Your task to perform on an android device: change notification settings in the gmail app Image 0: 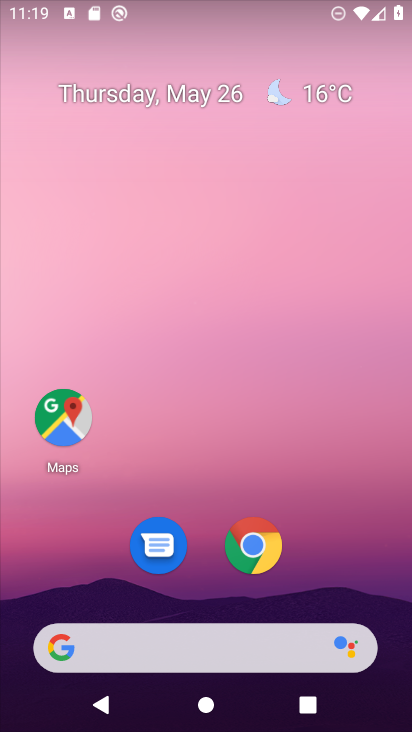
Step 0: press home button
Your task to perform on an android device: change notification settings in the gmail app Image 1: 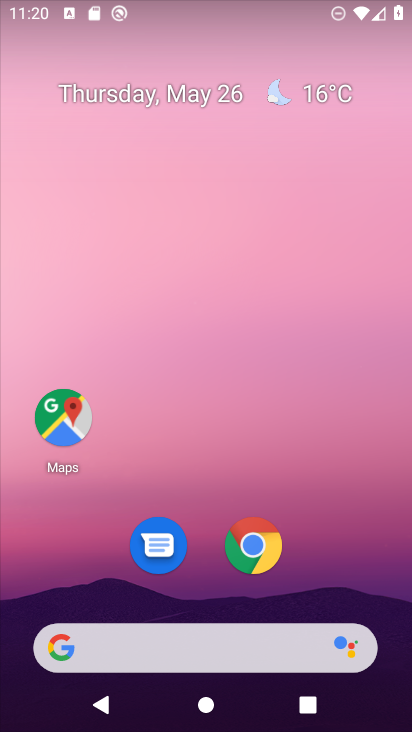
Step 1: drag from (221, 540) to (202, 116)
Your task to perform on an android device: change notification settings in the gmail app Image 2: 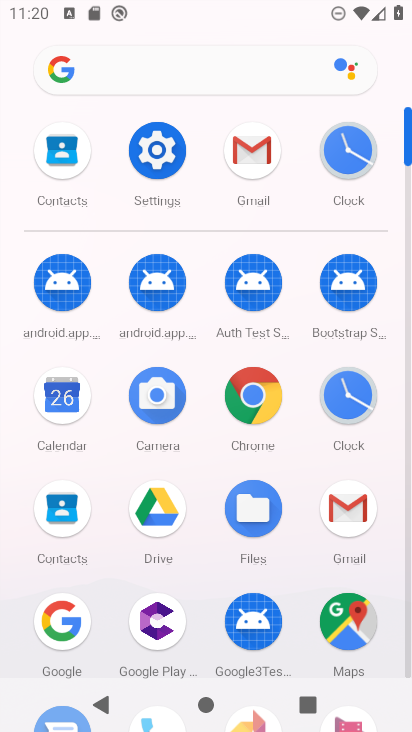
Step 2: click (241, 155)
Your task to perform on an android device: change notification settings in the gmail app Image 3: 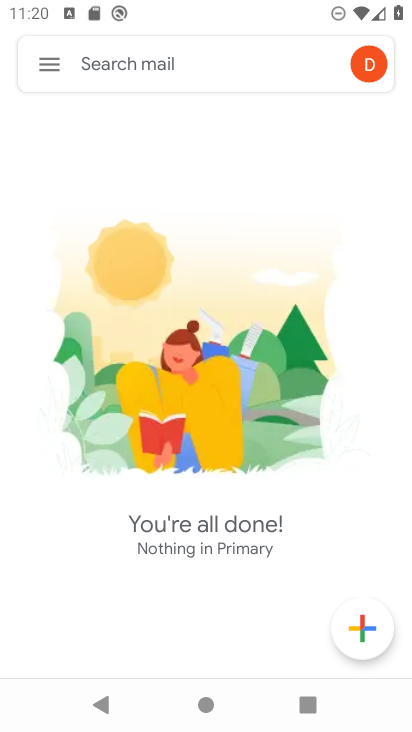
Step 3: click (37, 72)
Your task to perform on an android device: change notification settings in the gmail app Image 4: 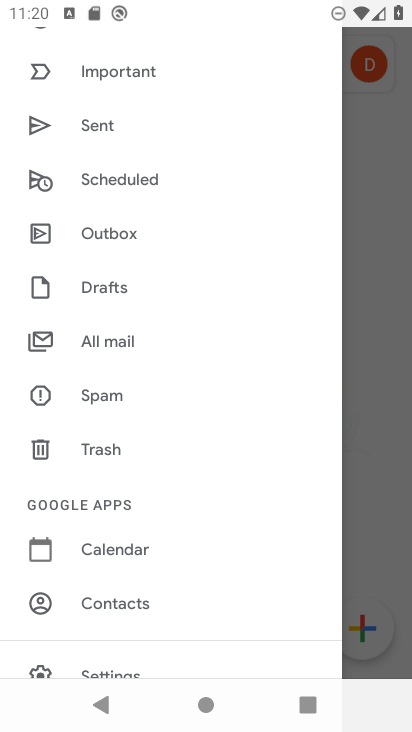
Step 4: drag from (213, 593) to (207, 296)
Your task to perform on an android device: change notification settings in the gmail app Image 5: 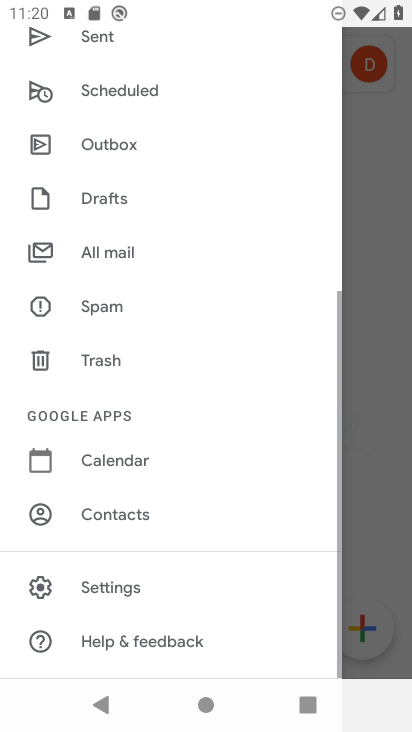
Step 5: click (111, 595)
Your task to perform on an android device: change notification settings in the gmail app Image 6: 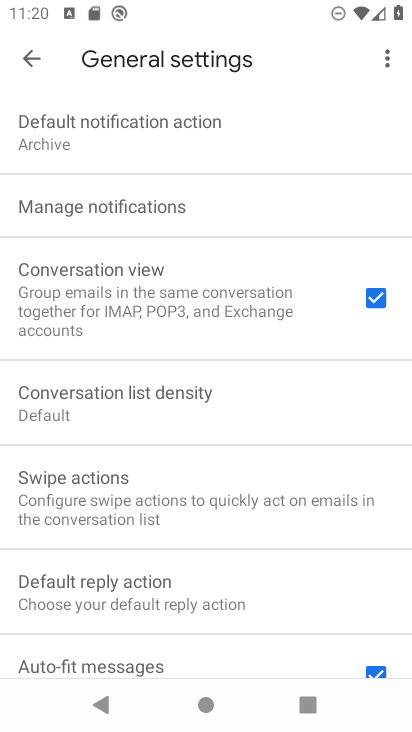
Step 6: click (90, 204)
Your task to perform on an android device: change notification settings in the gmail app Image 7: 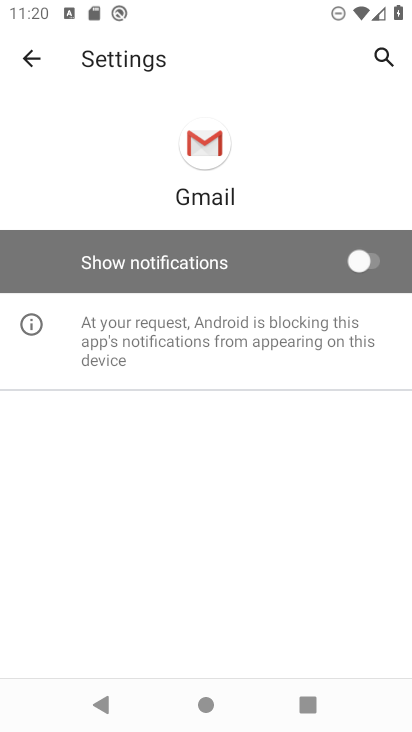
Step 7: click (370, 262)
Your task to perform on an android device: change notification settings in the gmail app Image 8: 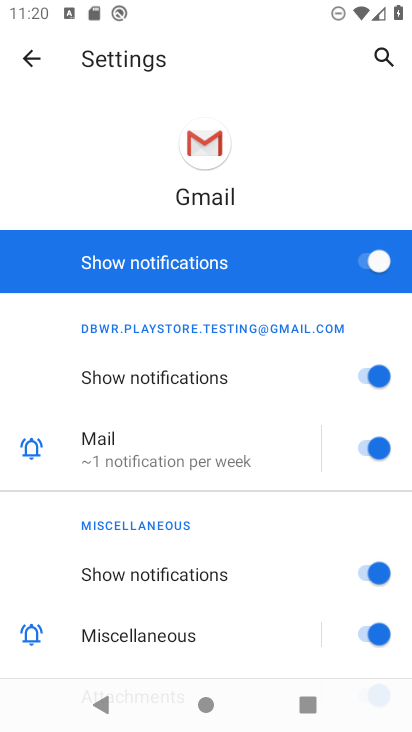
Step 8: task complete